Your task to perform on an android device: Open Yahoo.com Image 0: 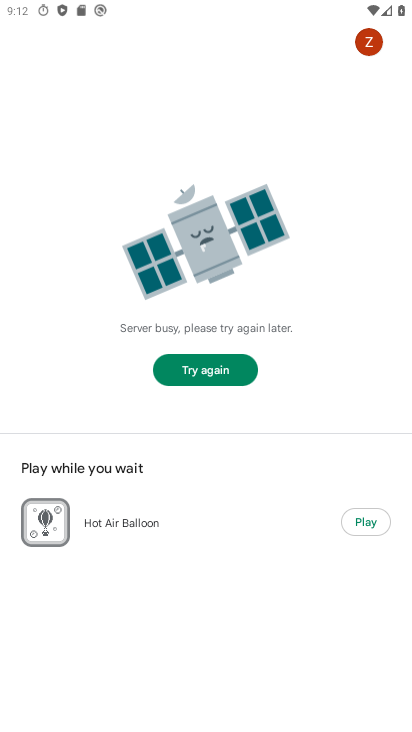
Step 0: press home button
Your task to perform on an android device: Open Yahoo.com Image 1: 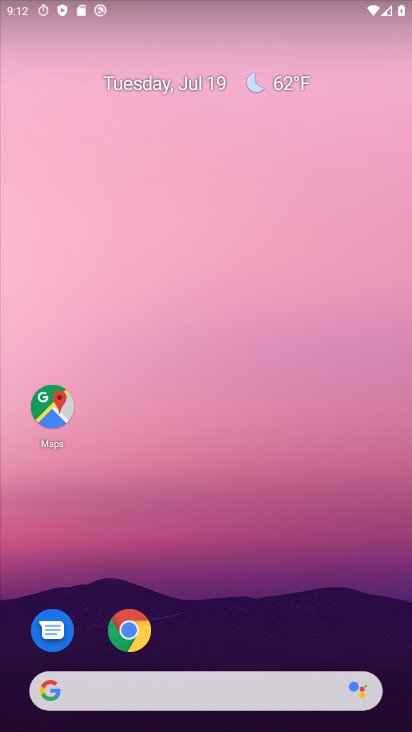
Step 1: click (131, 637)
Your task to perform on an android device: Open Yahoo.com Image 2: 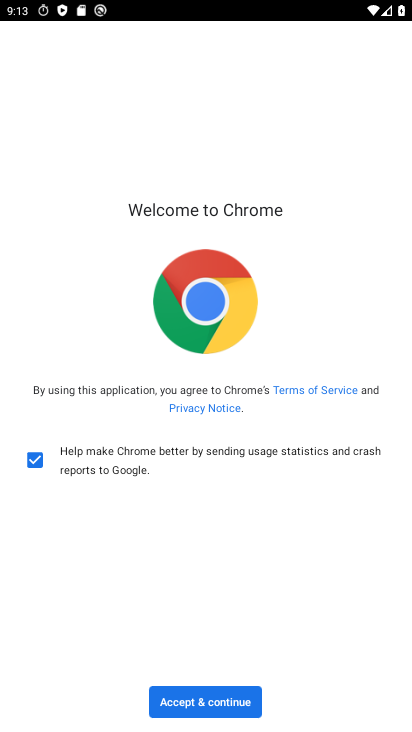
Step 2: click (169, 704)
Your task to perform on an android device: Open Yahoo.com Image 3: 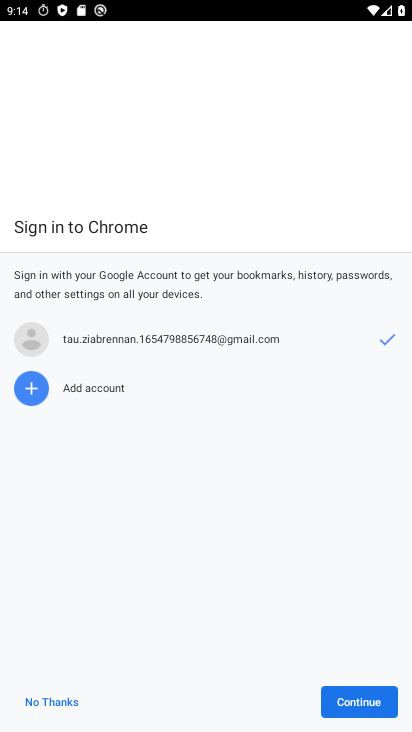
Step 3: click (380, 695)
Your task to perform on an android device: Open Yahoo.com Image 4: 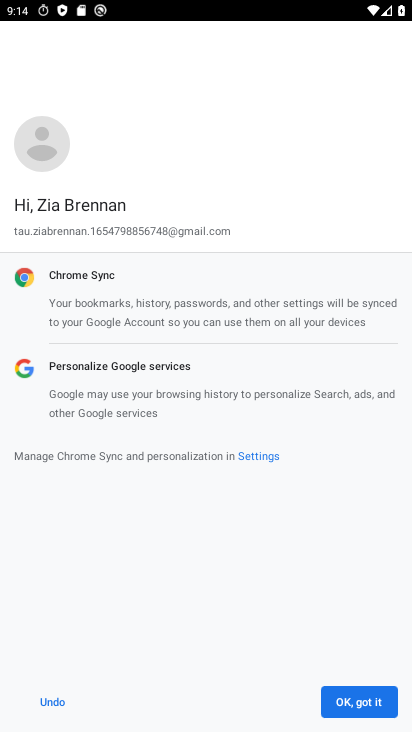
Step 4: click (383, 698)
Your task to perform on an android device: Open Yahoo.com Image 5: 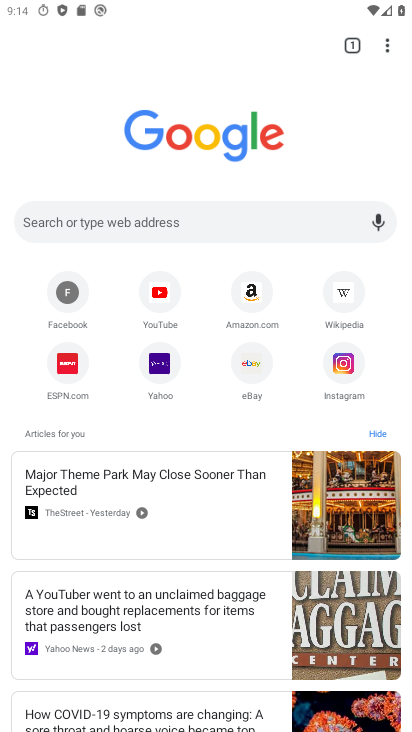
Step 5: click (164, 358)
Your task to perform on an android device: Open Yahoo.com Image 6: 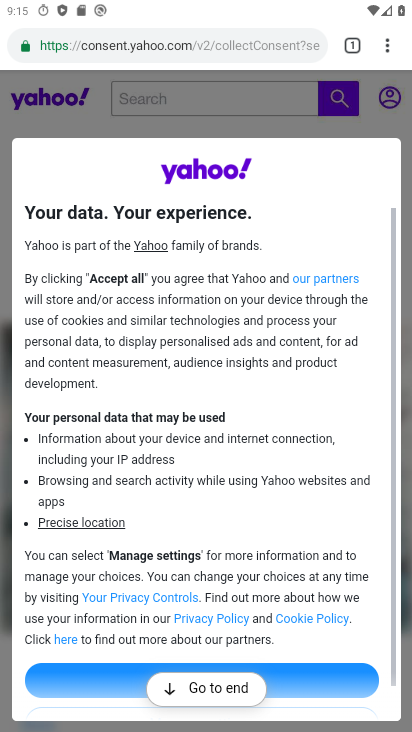
Step 6: task complete